Your task to perform on an android device: open chrome and create a bookmark for the current page Image 0: 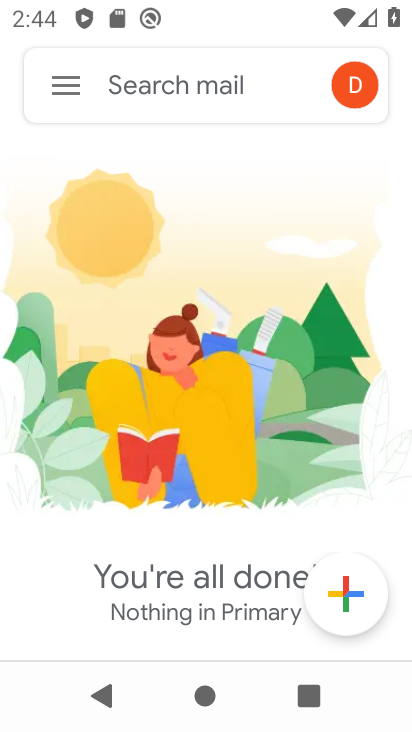
Step 0: press home button
Your task to perform on an android device: open chrome and create a bookmark for the current page Image 1: 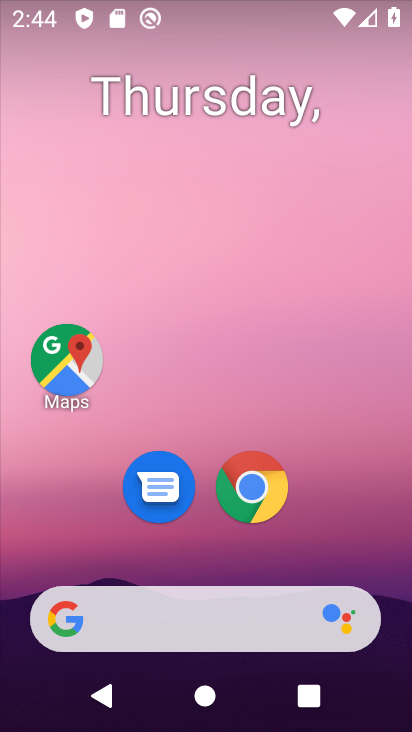
Step 1: click (235, 468)
Your task to perform on an android device: open chrome and create a bookmark for the current page Image 2: 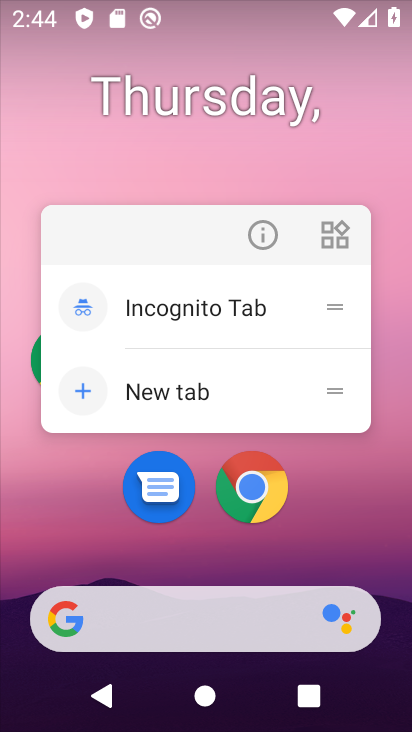
Step 2: click (235, 468)
Your task to perform on an android device: open chrome and create a bookmark for the current page Image 3: 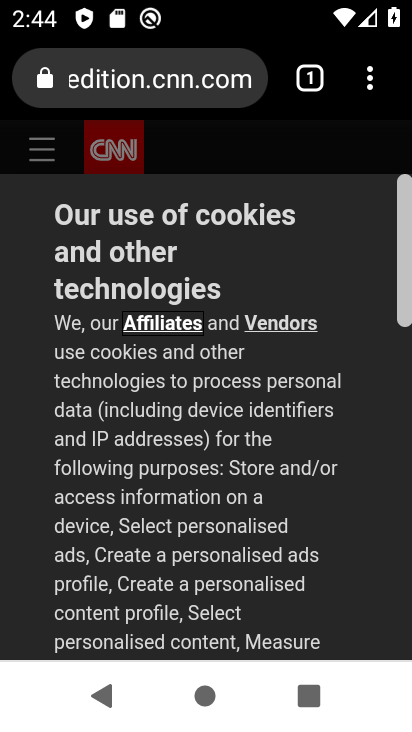
Step 3: drag from (381, 82) to (124, 76)
Your task to perform on an android device: open chrome and create a bookmark for the current page Image 4: 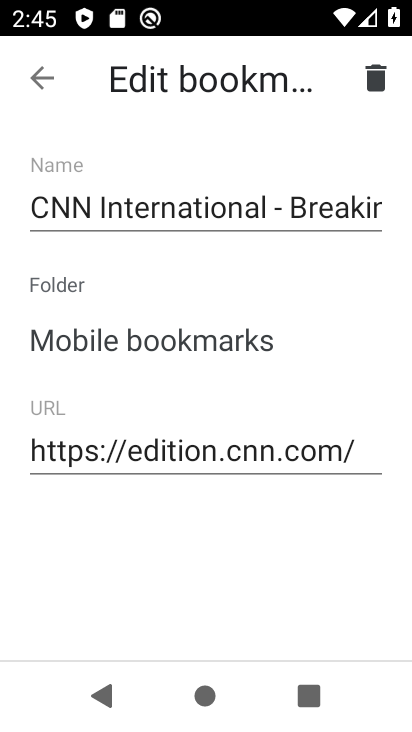
Step 4: click (36, 92)
Your task to perform on an android device: open chrome and create a bookmark for the current page Image 5: 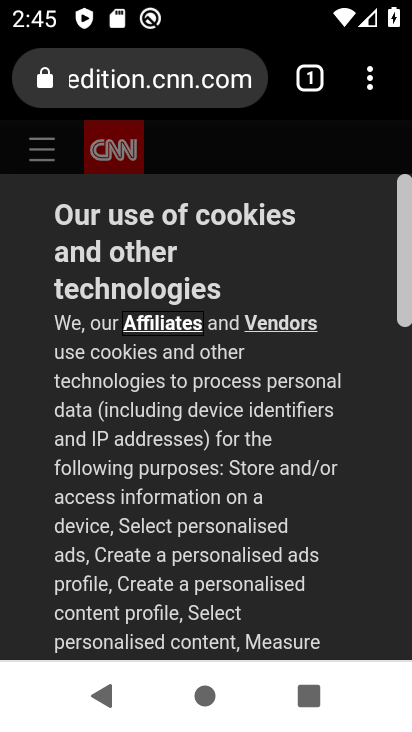
Step 5: task complete